Your task to perform on an android device: Open calendar and show me the fourth week of next month Image 0: 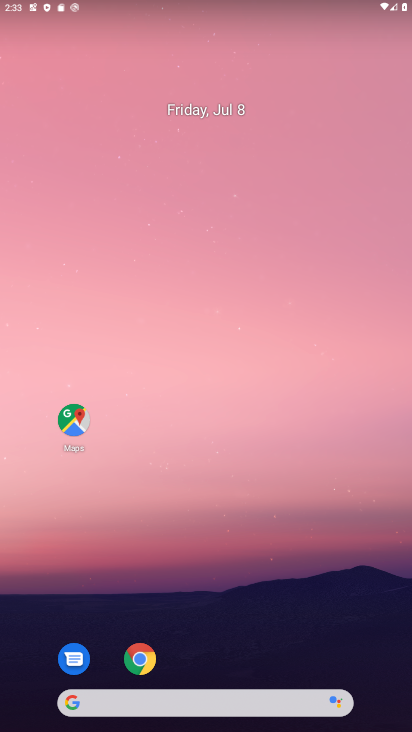
Step 0: click (163, 46)
Your task to perform on an android device: Open calendar and show me the fourth week of next month Image 1: 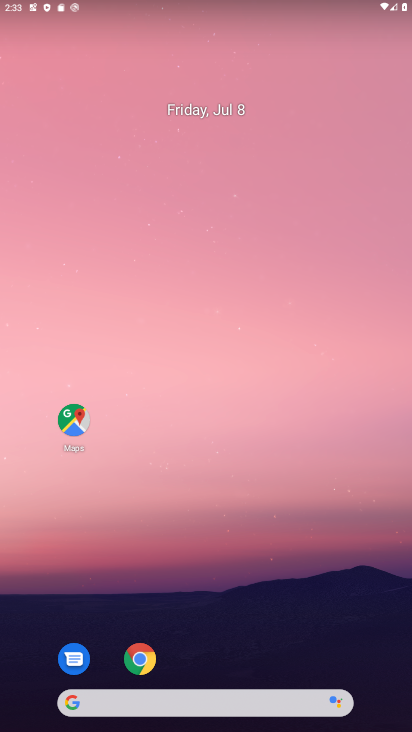
Step 1: drag from (223, 432) to (165, 11)
Your task to perform on an android device: Open calendar and show me the fourth week of next month Image 2: 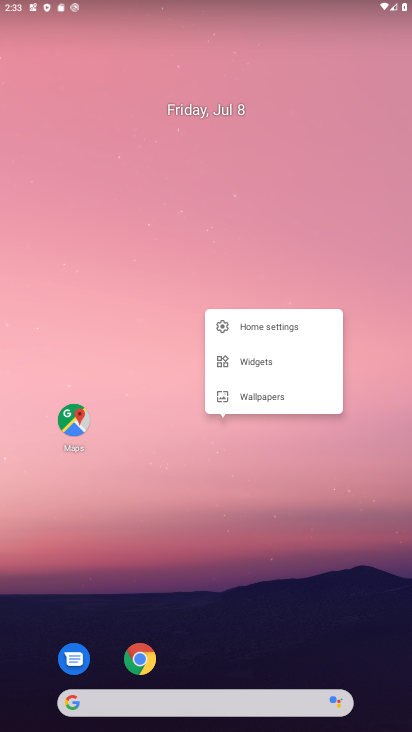
Step 2: click (237, 10)
Your task to perform on an android device: Open calendar and show me the fourth week of next month Image 3: 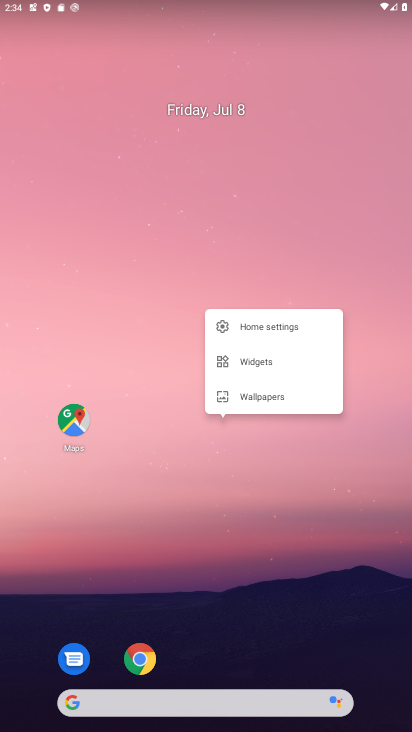
Step 3: click (139, 142)
Your task to perform on an android device: Open calendar and show me the fourth week of next month Image 4: 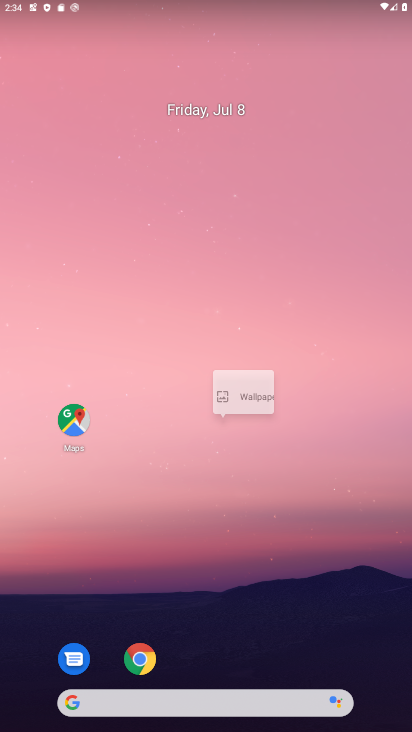
Step 4: drag from (158, 414) to (113, 17)
Your task to perform on an android device: Open calendar and show me the fourth week of next month Image 5: 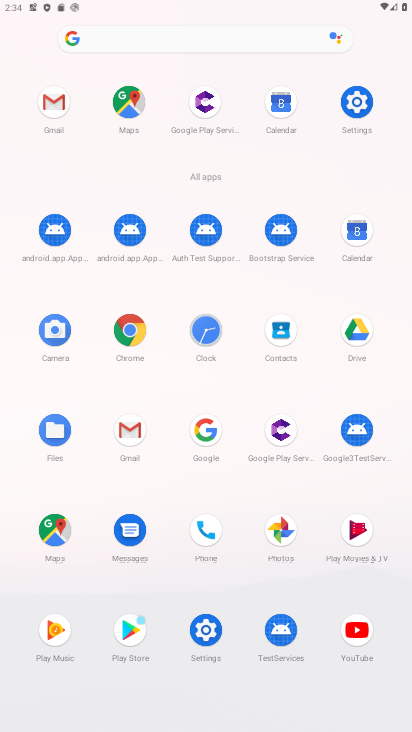
Step 5: drag from (205, 256) to (155, 82)
Your task to perform on an android device: Open calendar and show me the fourth week of next month Image 6: 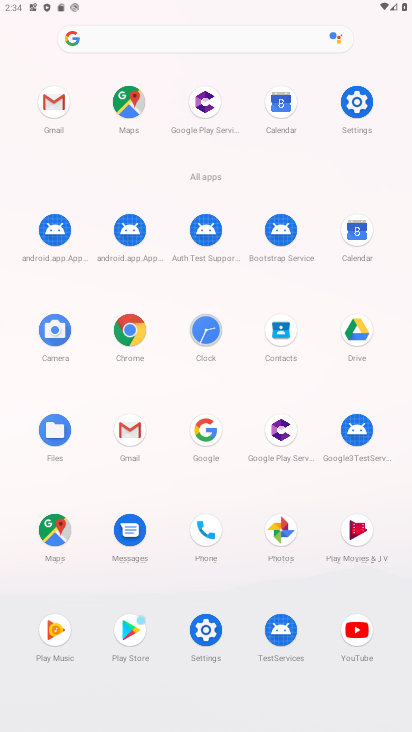
Step 6: drag from (238, 564) to (130, 115)
Your task to perform on an android device: Open calendar and show me the fourth week of next month Image 7: 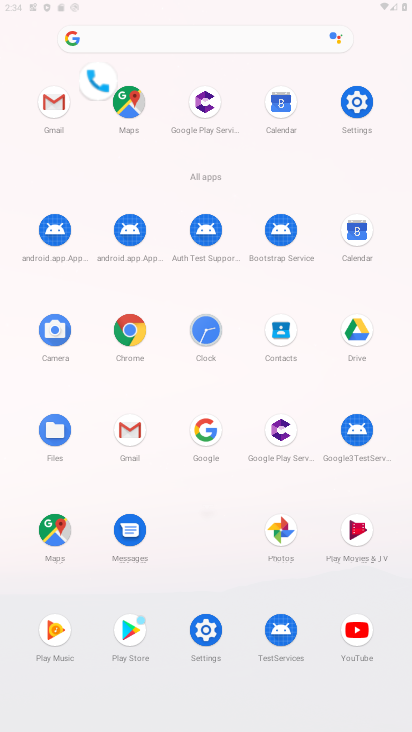
Step 7: drag from (148, 445) to (111, 42)
Your task to perform on an android device: Open calendar and show me the fourth week of next month Image 8: 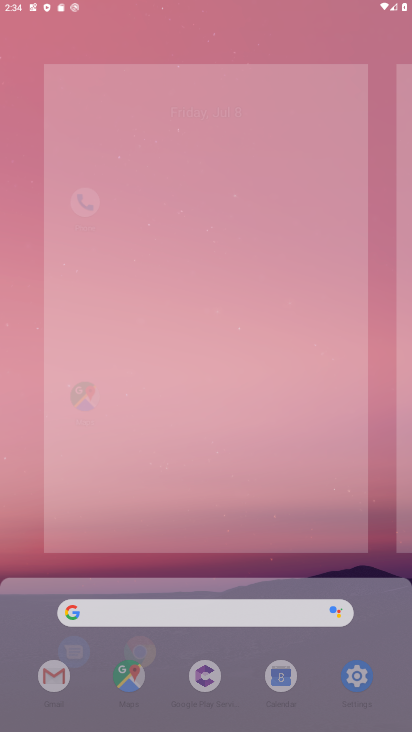
Step 8: click (191, 12)
Your task to perform on an android device: Open calendar and show me the fourth week of next month Image 9: 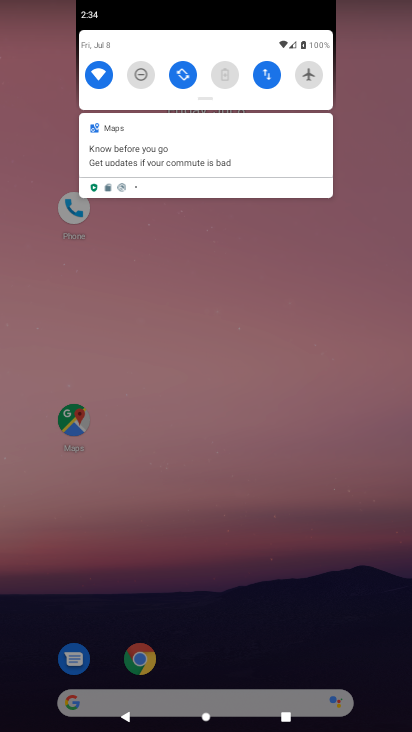
Step 9: click (82, 5)
Your task to perform on an android device: Open calendar and show me the fourth week of next month Image 10: 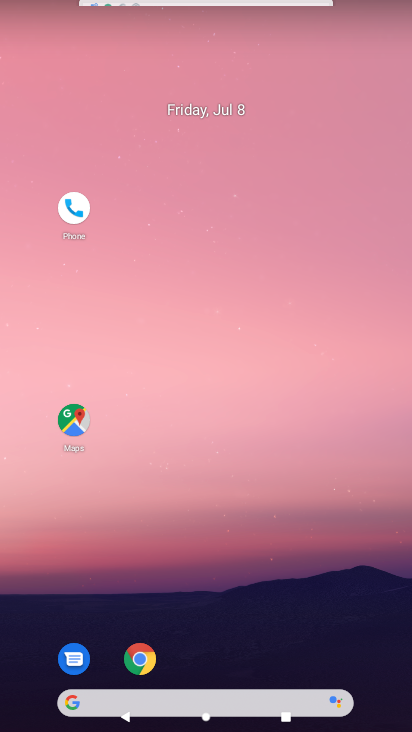
Step 10: click (164, 290)
Your task to perform on an android device: Open calendar and show me the fourth week of next month Image 11: 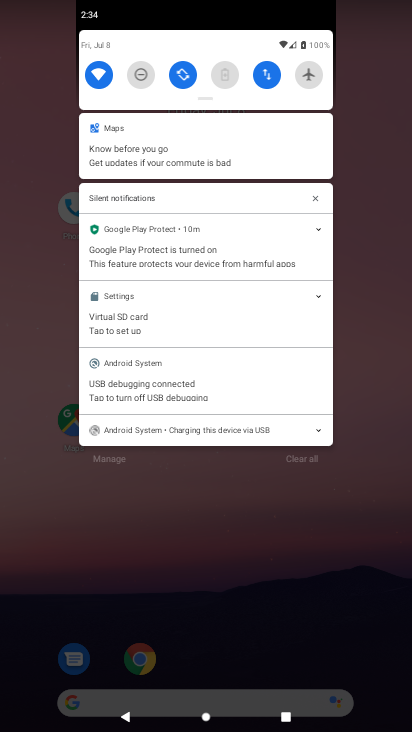
Step 11: drag from (168, 515) to (109, 160)
Your task to perform on an android device: Open calendar and show me the fourth week of next month Image 12: 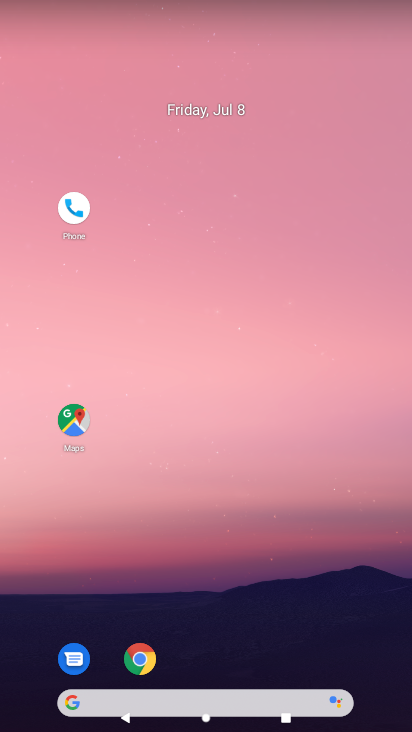
Step 12: click (112, 115)
Your task to perform on an android device: Open calendar and show me the fourth week of next month Image 13: 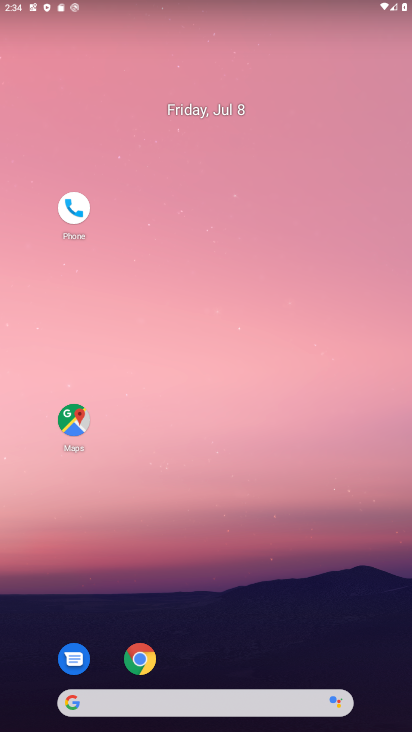
Step 13: click (227, 141)
Your task to perform on an android device: Open calendar and show me the fourth week of next month Image 14: 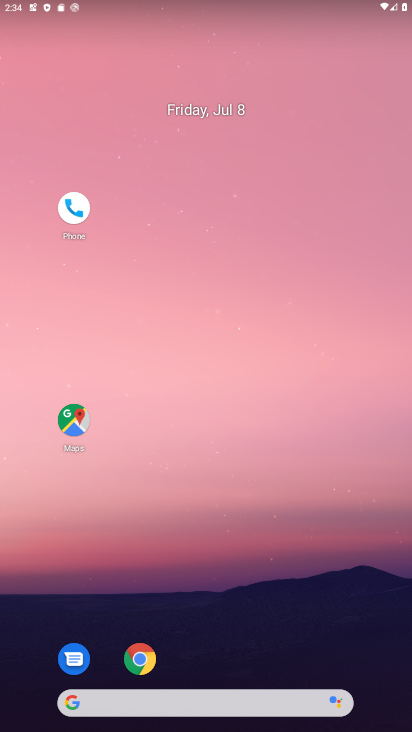
Step 14: task complete